Your task to perform on an android device: turn notification dots off Image 0: 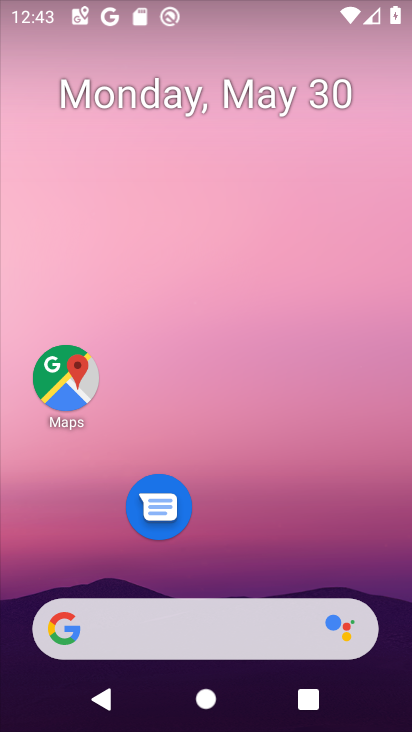
Step 0: drag from (304, 535) to (342, 86)
Your task to perform on an android device: turn notification dots off Image 1: 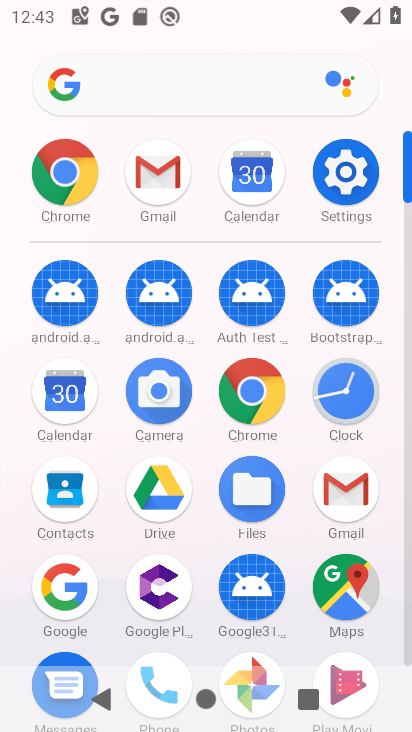
Step 1: click (345, 168)
Your task to perform on an android device: turn notification dots off Image 2: 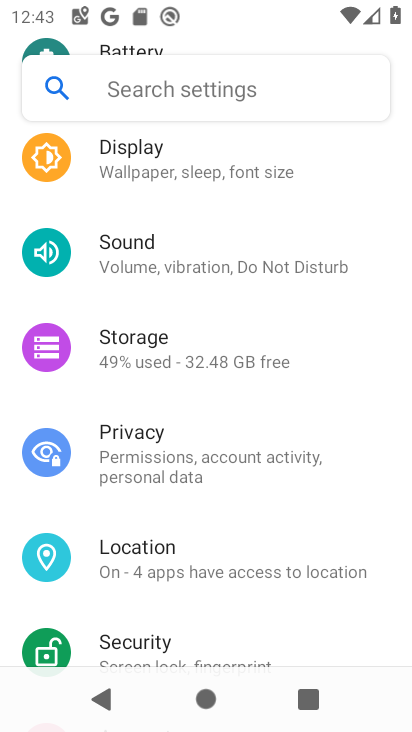
Step 2: drag from (301, 164) to (239, 592)
Your task to perform on an android device: turn notification dots off Image 3: 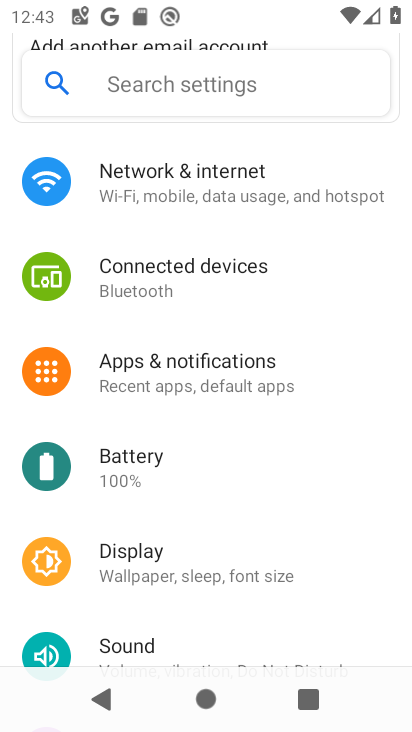
Step 3: click (184, 369)
Your task to perform on an android device: turn notification dots off Image 4: 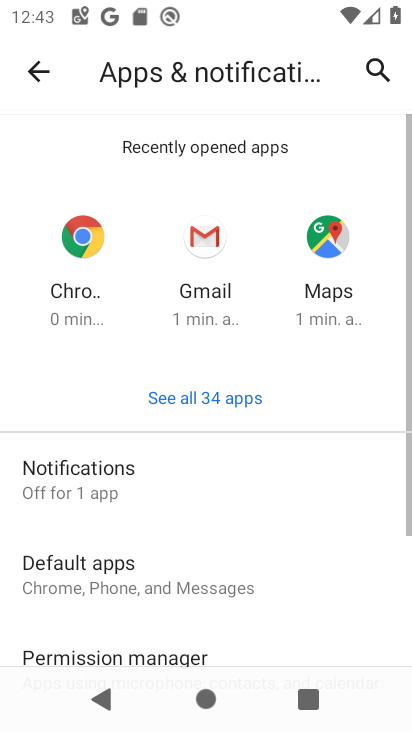
Step 4: drag from (284, 602) to (294, 482)
Your task to perform on an android device: turn notification dots off Image 5: 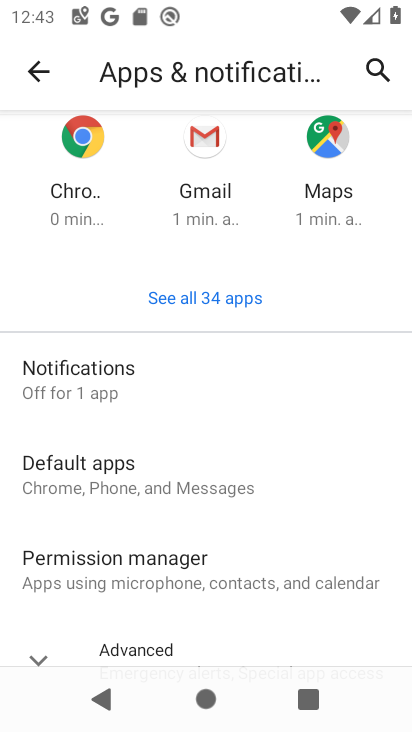
Step 5: click (75, 377)
Your task to perform on an android device: turn notification dots off Image 6: 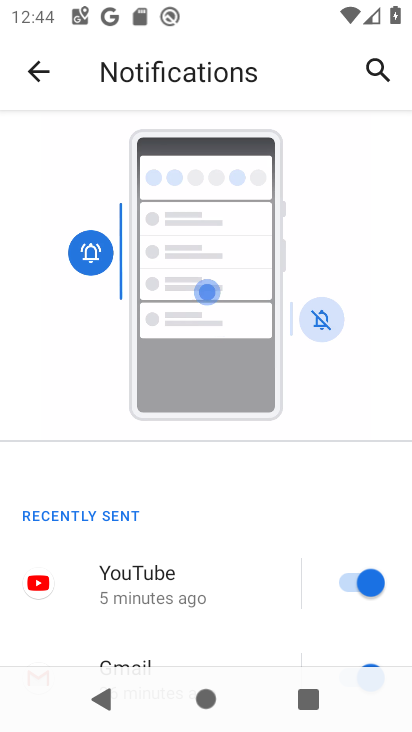
Step 6: drag from (218, 612) to (279, 114)
Your task to perform on an android device: turn notification dots off Image 7: 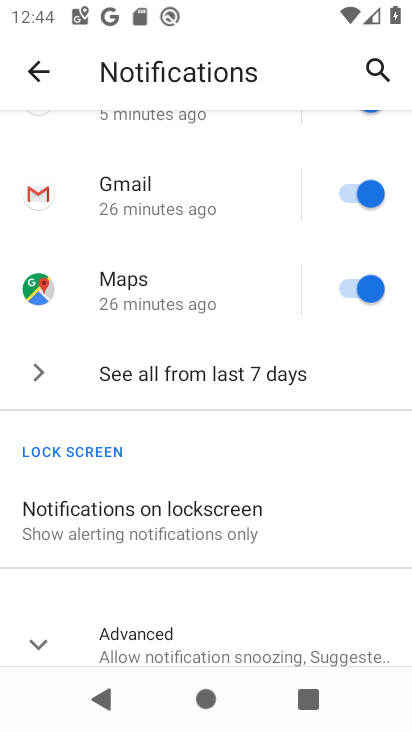
Step 7: drag from (246, 600) to (233, 348)
Your task to perform on an android device: turn notification dots off Image 8: 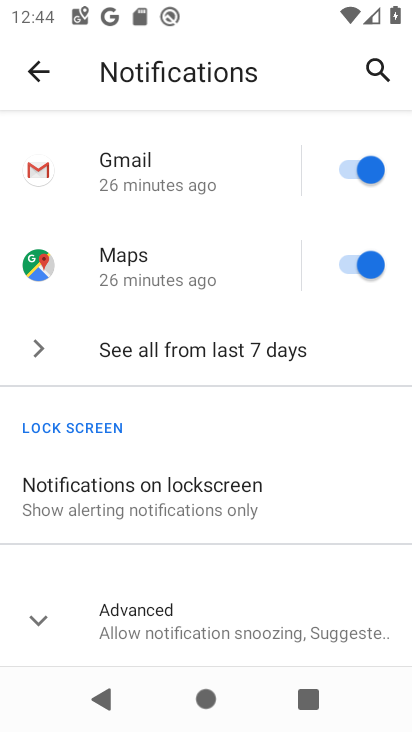
Step 8: click (300, 628)
Your task to perform on an android device: turn notification dots off Image 9: 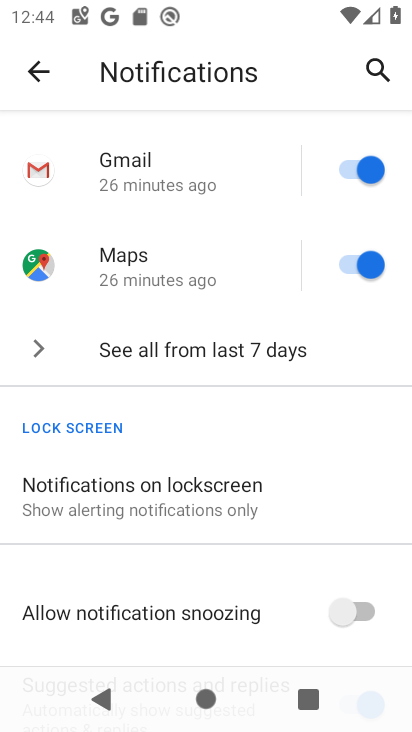
Step 9: drag from (252, 637) to (292, 268)
Your task to perform on an android device: turn notification dots off Image 10: 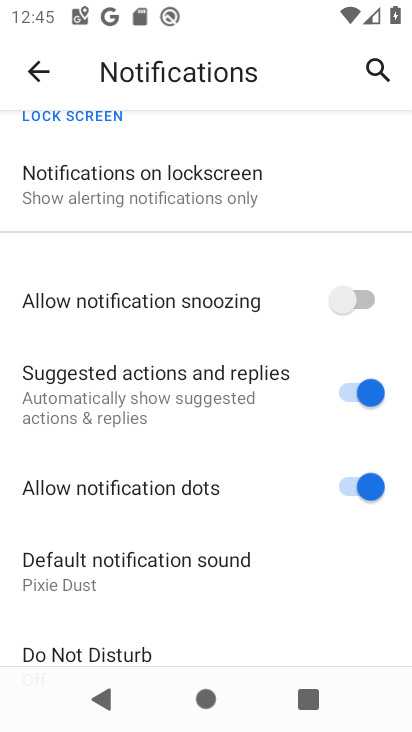
Step 10: click (366, 481)
Your task to perform on an android device: turn notification dots off Image 11: 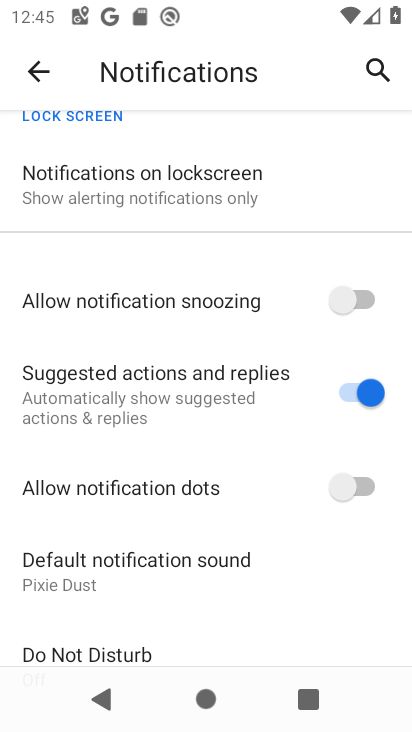
Step 11: task complete